Your task to perform on an android device: Open my contact list Image 0: 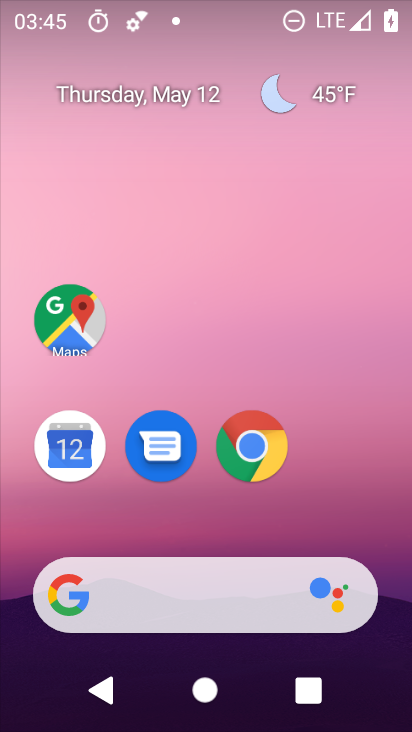
Step 0: drag from (211, 406) to (221, 166)
Your task to perform on an android device: Open my contact list Image 1: 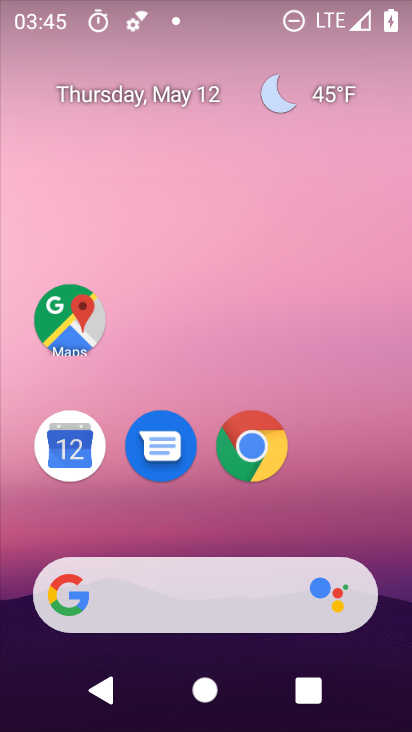
Step 1: drag from (196, 535) to (200, 163)
Your task to perform on an android device: Open my contact list Image 2: 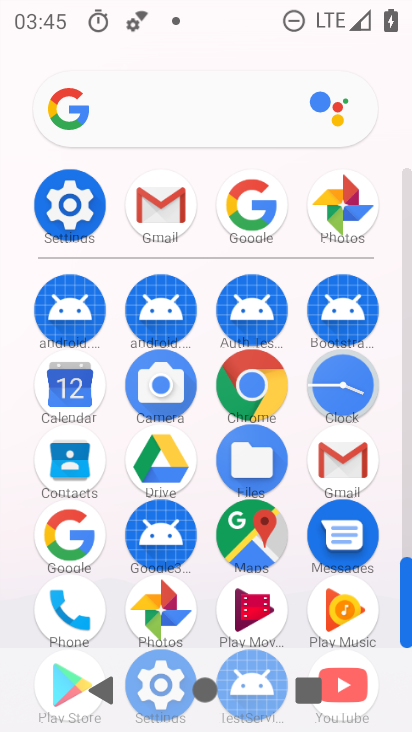
Step 2: click (62, 472)
Your task to perform on an android device: Open my contact list Image 3: 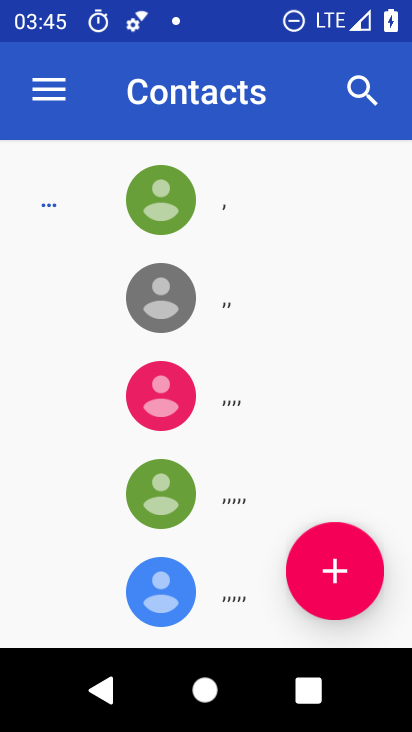
Step 3: task complete